Your task to perform on an android device: Show me productivity apps on the Play Store Image 0: 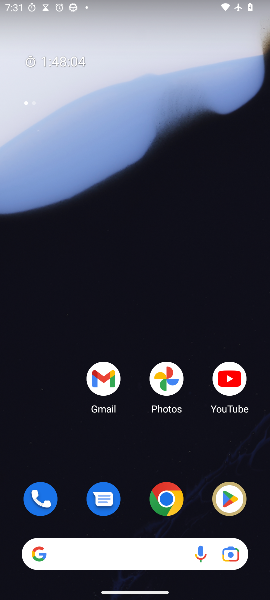
Step 0: drag from (73, 503) to (130, 16)
Your task to perform on an android device: Show me productivity apps on the Play Store Image 1: 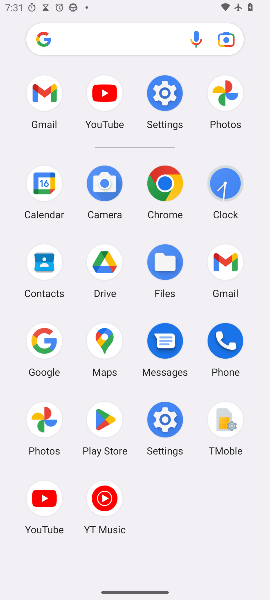
Step 1: click (103, 436)
Your task to perform on an android device: Show me productivity apps on the Play Store Image 2: 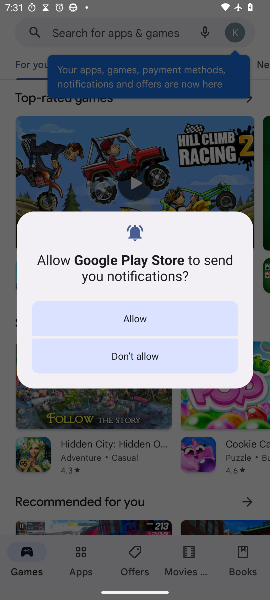
Step 2: click (142, 328)
Your task to perform on an android device: Show me productivity apps on the Play Store Image 3: 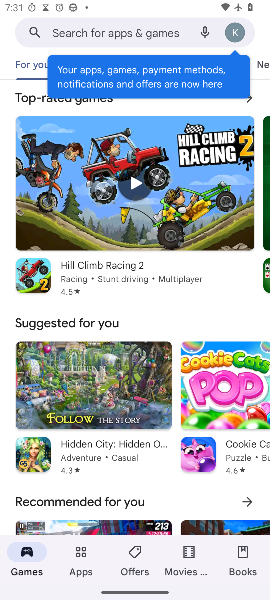
Step 3: click (118, 27)
Your task to perform on an android device: Show me productivity apps on the Play Store Image 4: 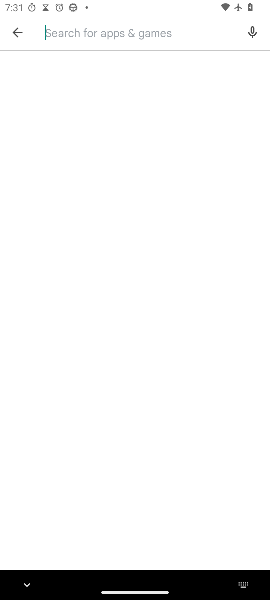
Step 4: type "productivity apps"
Your task to perform on an android device: Show me productivity apps on the Play Store Image 5: 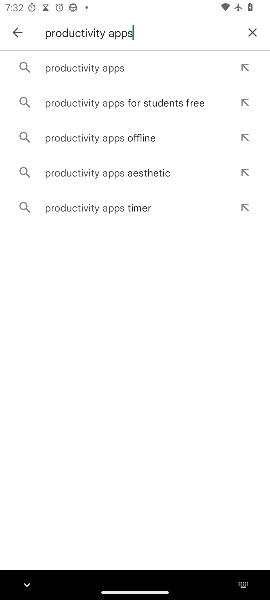
Step 5: click (95, 73)
Your task to perform on an android device: Show me productivity apps on the Play Store Image 6: 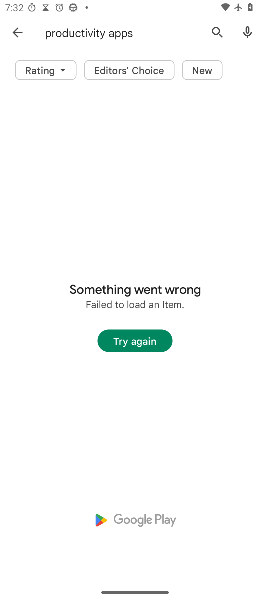
Step 6: click (132, 343)
Your task to perform on an android device: Show me productivity apps on the Play Store Image 7: 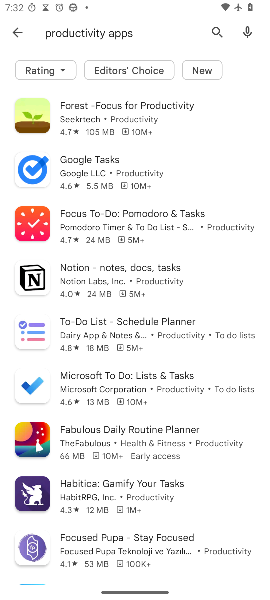
Step 7: task complete